Your task to perform on an android device: See recent photos Image 0: 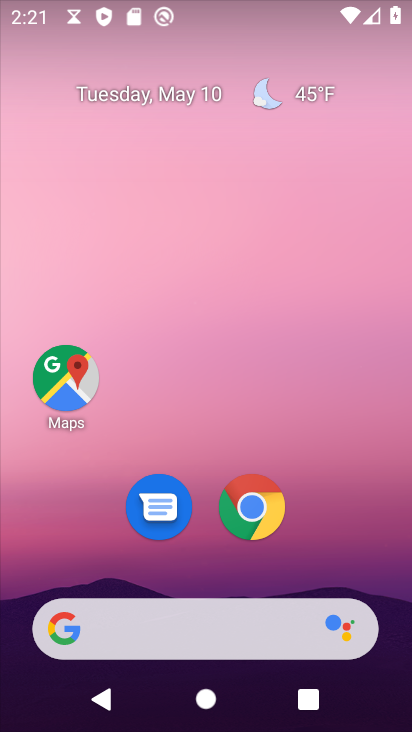
Step 0: drag from (330, 499) to (298, 153)
Your task to perform on an android device: See recent photos Image 1: 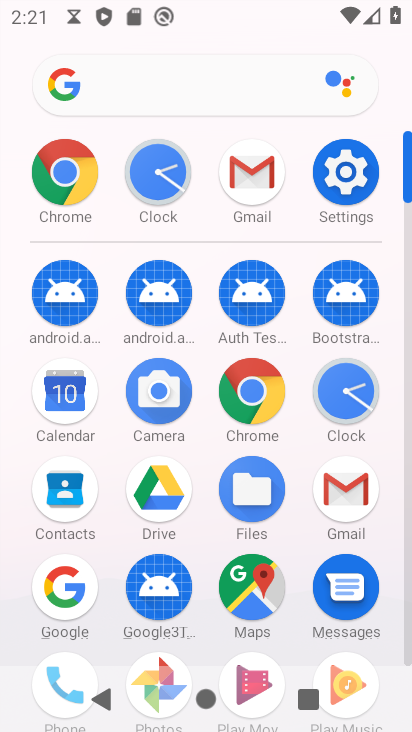
Step 1: drag from (209, 620) to (211, 342)
Your task to perform on an android device: See recent photos Image 2: 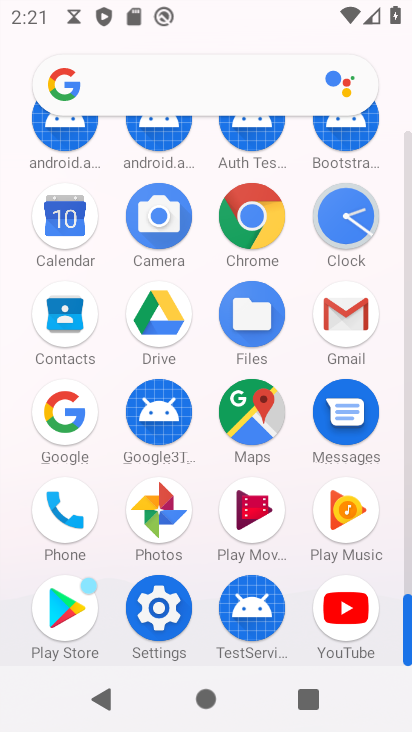
Step 2: click (162, 499)
Your task to perform on an android device: See recent photos Image 3: 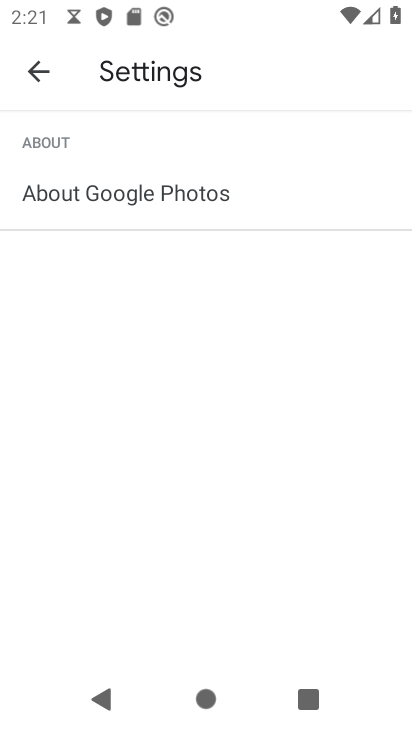
Step 3: press back button
Your task to perform on an android device: See recent photos Image 4: 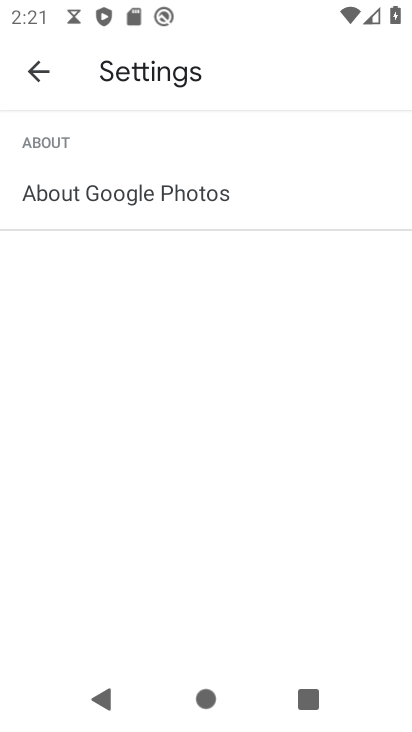
Step 4: press back button
Your task to perform on an android device: See recent photos Image 5: 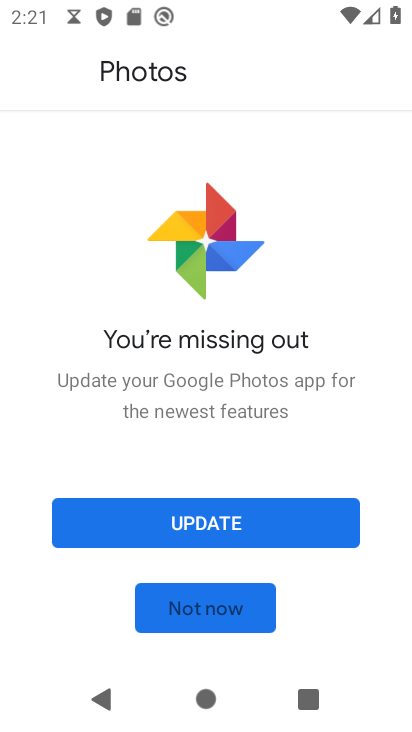
Step 5: press back button
Your task to perform on an android device: See recent photos Image 6: 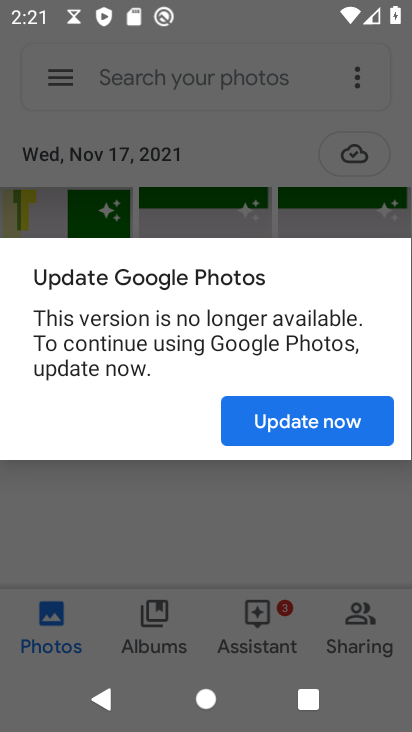
Step 6: press back button
Your task to perform on an android device: See recent photos Image 7: 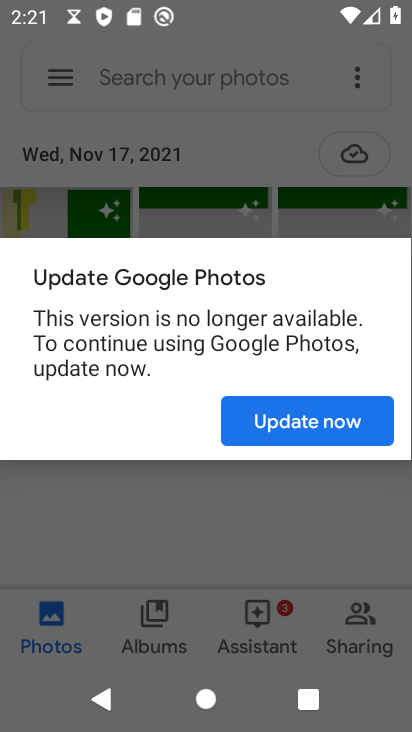
Step 7: click (344, 426)
Your task to perform on an android device: See recent photos Image 8: 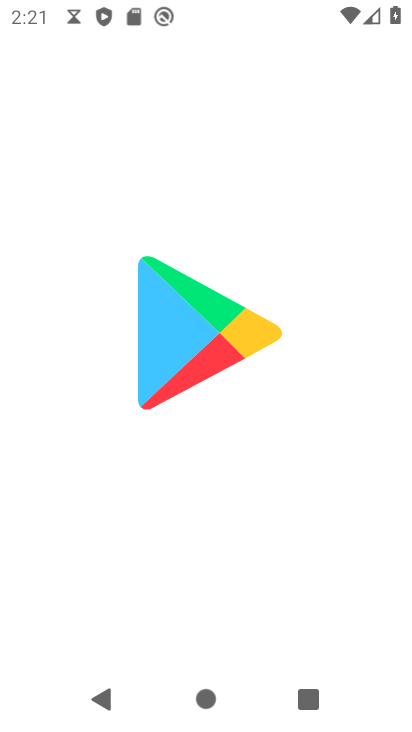
Step 8: task complete